Your task to perform on an android device: Open CNN.com Image 0: 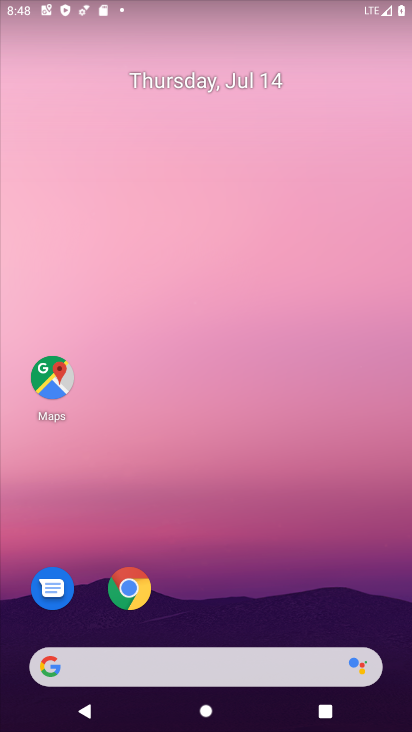
Step 0: drag from (372, 617) to (184, 7)
Your task to perform on an android device: Open CNN.com Image 1: 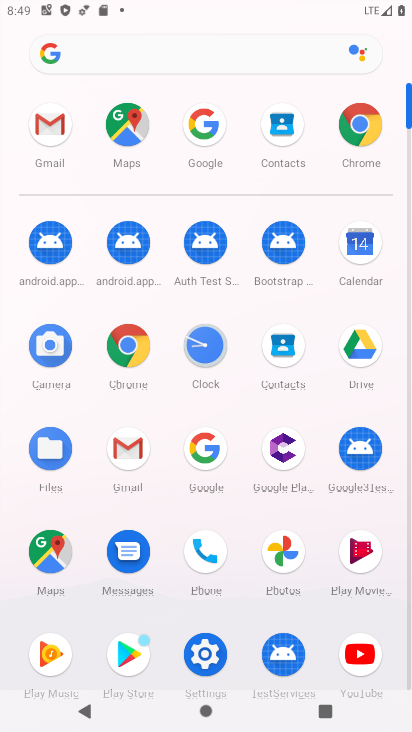
Step 1: click (206, 432)
Your task to perform on an android device: Open CNN.com Image 2: 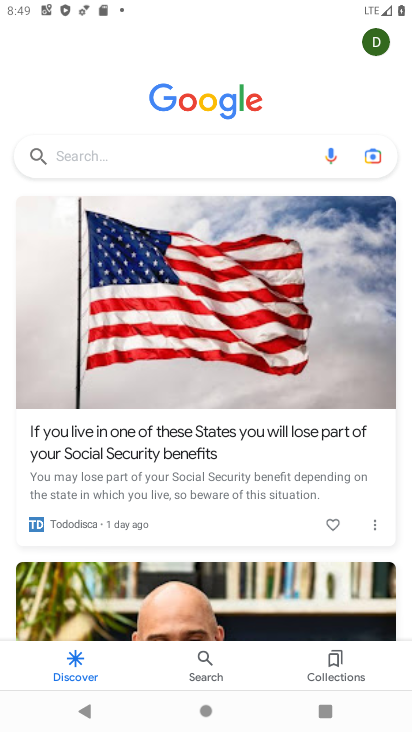
Step 2: click (151, 140)
Your task to perform on an android device: Open CNN.com Image 3: 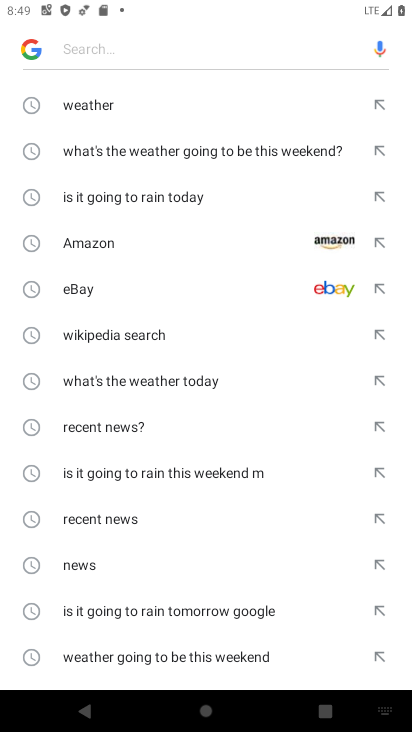
Step 3: type "cnn.com"
Your task to perform on an android device: Open CNN.com Image 4: 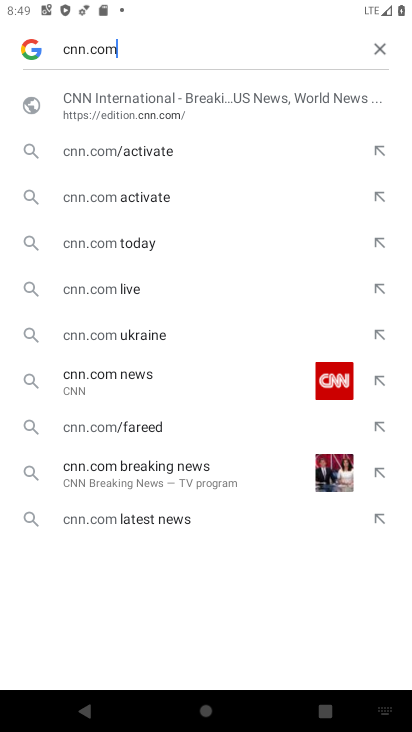
Step 4: click (50, 111)
Your task to perform on an android device: Open CNN.com Image 5: 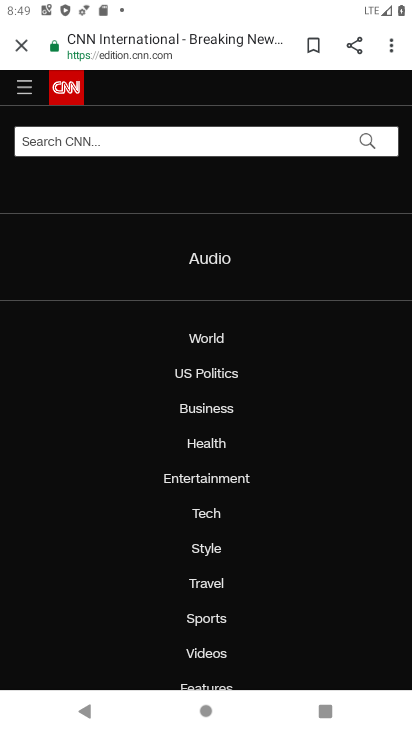
Step 5: task complete